Your task to perform on an android device: Go to sound settings Image 0: 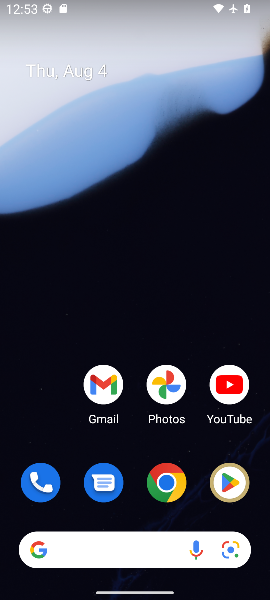
Step 0: click (135, 155)
Your task to perform on an android device: Go to sound settings Image 1: 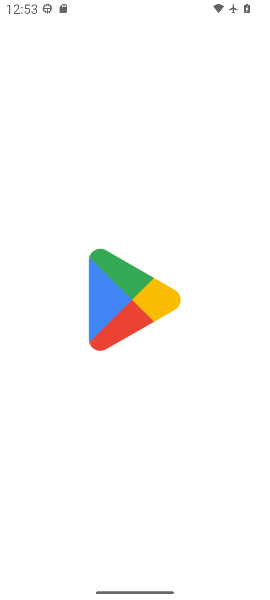
Step 1: drag from (127, 465) to (132, 437)
Your task to perform on an android device: Go to sound settings Image 2: 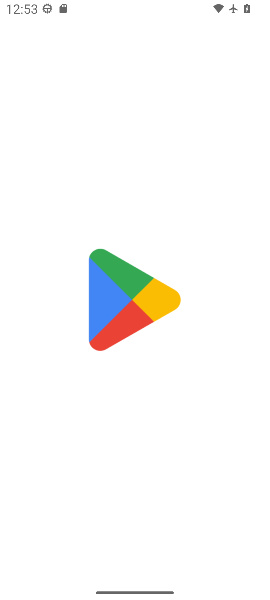
Step 2: press home button
Your task to perform on an android device: Go to sound settings Image 3: 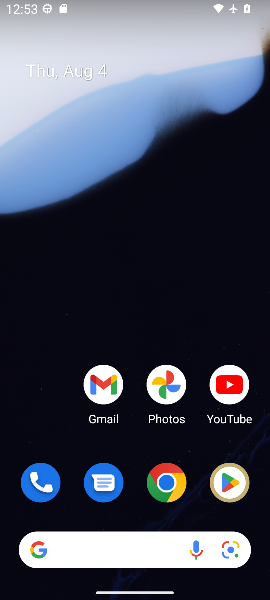
Step 3: drag from (124, 431) to (107, 185)
Your task to perform on an android device: Go to sound settings Image 4: 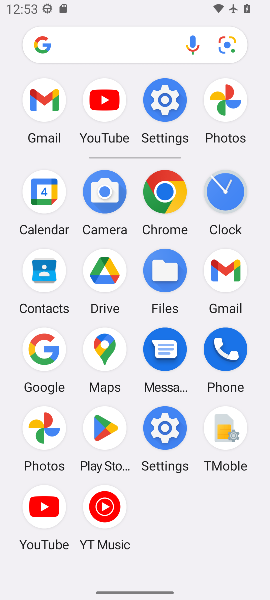
Step 4: click (166, 118)
Your task to perform on an android device: Go to sound settings Image 5: 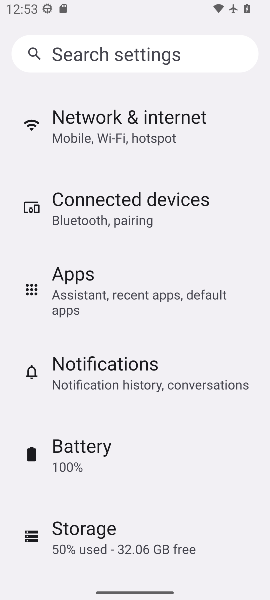
Step 5: drag from (117, 457) to (116, 198)
Your task to perform on an android device: Go to sound settings Image 6: 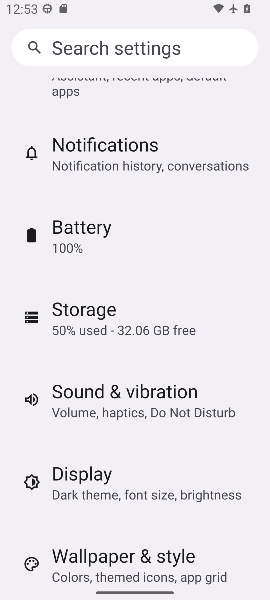
Step 6: click (116, 393)
Your task to perform on an android device: Go to sound settings Image 7: 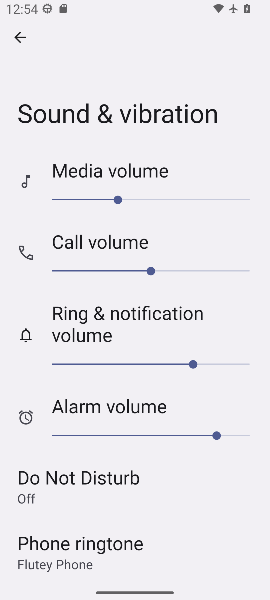
Step 7: task complete